Your task to perform on an android device: Open sound settings Image 0: 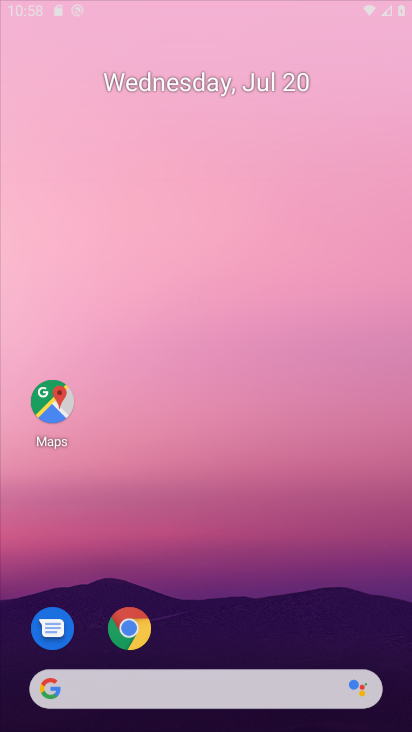
Step 0: click (113, 52)
Your task to perform on an android device: Open sound settings Image 1: 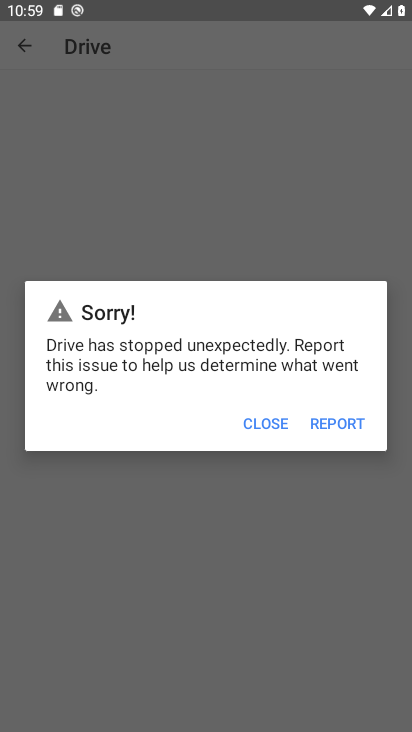
Step 1: click (264, 429)
Your task to perform on an android device: Open sound settings Image 2: 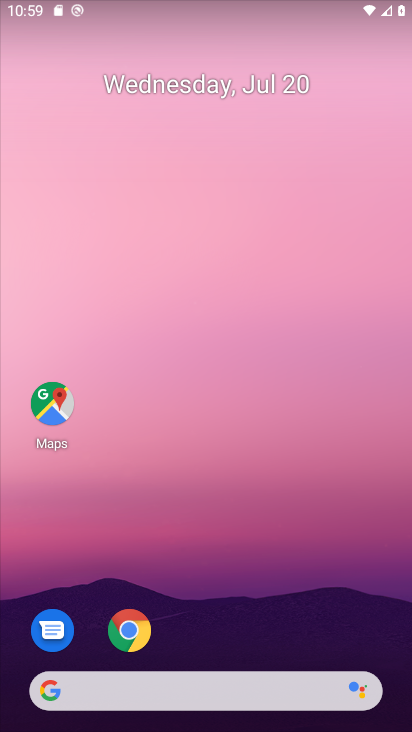
Step 2: drag from (253, 605) to (141, 66)
Your task to perform on an android device: Open sound settings Image 3: 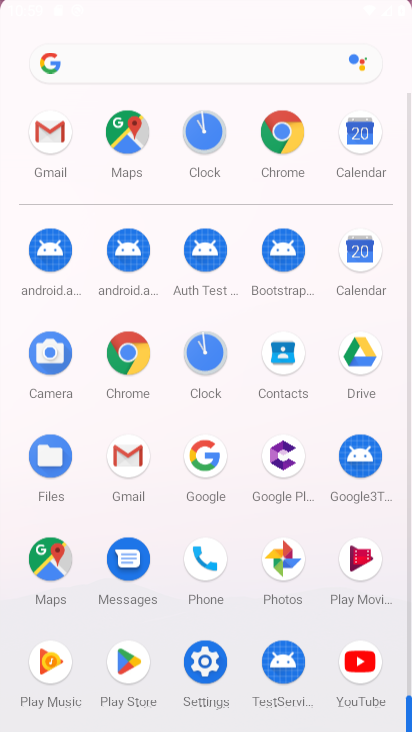
Step 3: drag from (248, 452) to (235, 112)
Your task to perform on an android device: Open sound settings Image 4: 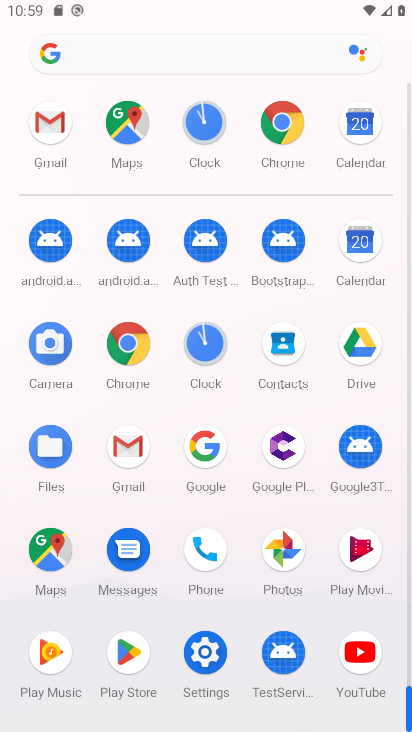
Step 4: click (148, 74)
Your task to perform on an android device: Open sound settings Image 5: 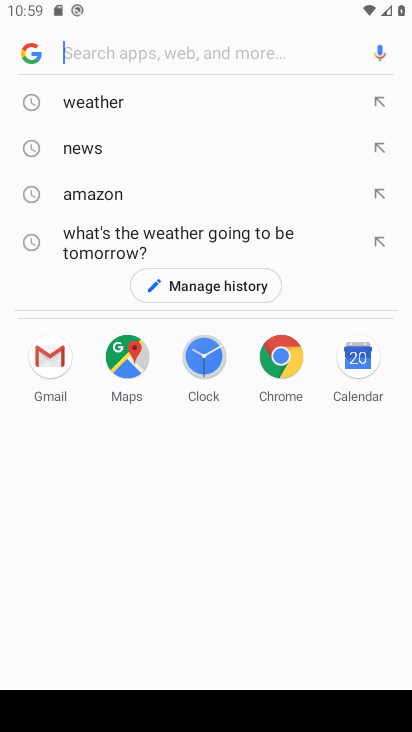
Step 5: click (220, 660)
Your task to perform on an android device: Open sound settings Image 6: 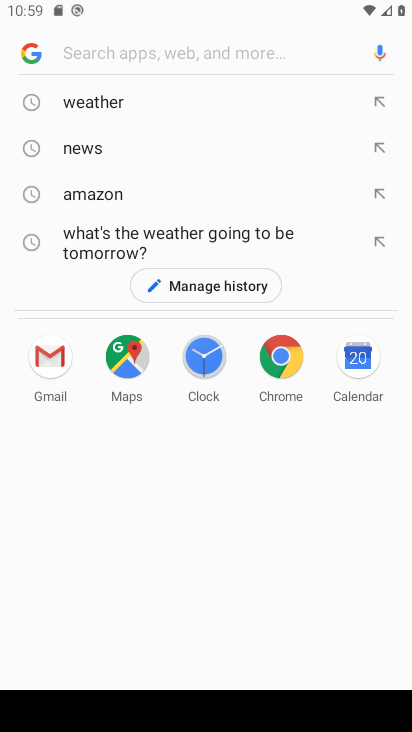
Step 6: press back button
Your task to perform on an android device: Open sound settings Image 7: 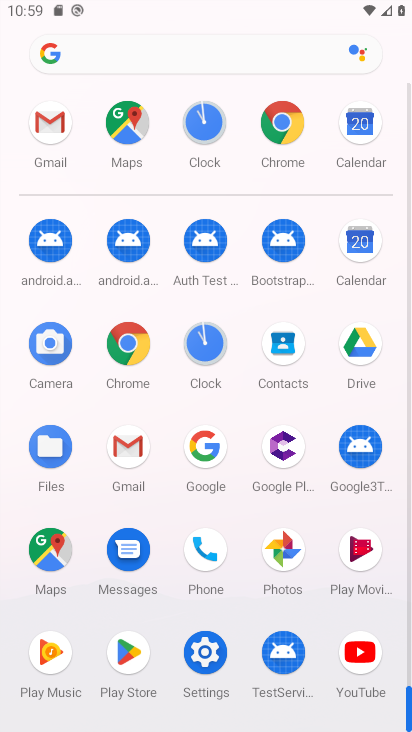
Step 7: click (193, 658)
Your task to perform on an android device: Open sound settings Image 8: 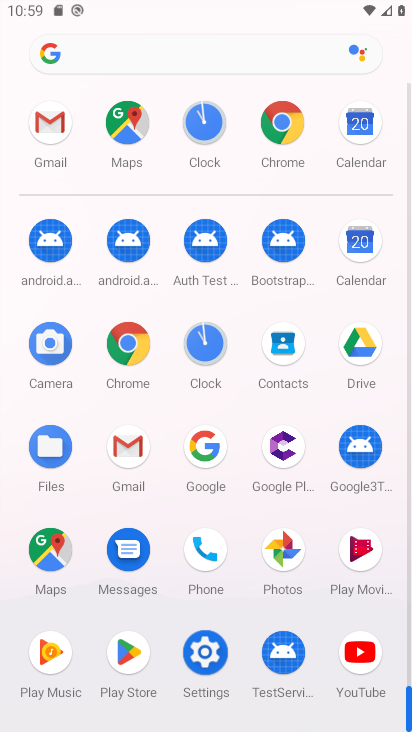
Step 8: click (197, 654)
Your task to perform on an android device: Open sound settings Image 9: 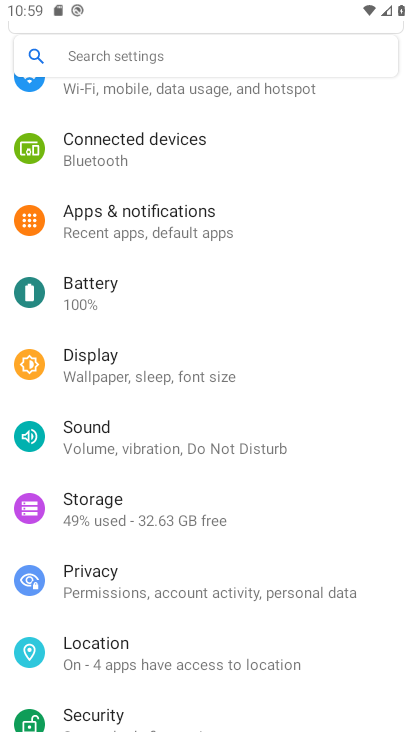
Step 9: click (87, 440)
Your task to perform on an android device: Open sound settings Image 10: 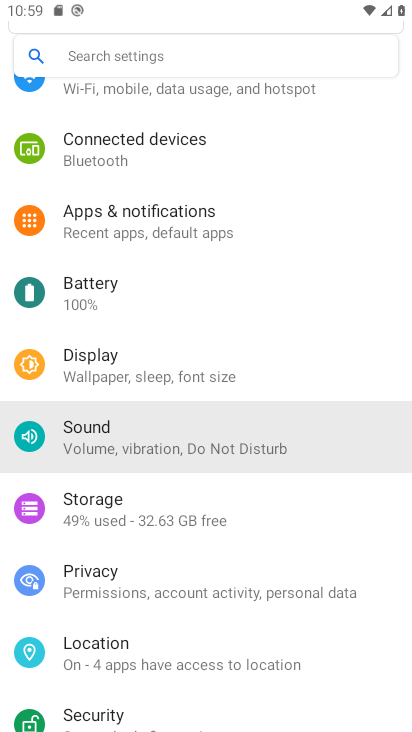
Step 10: click (91, 448)
Your task to perform on an android device: Open sound settings Image 11: 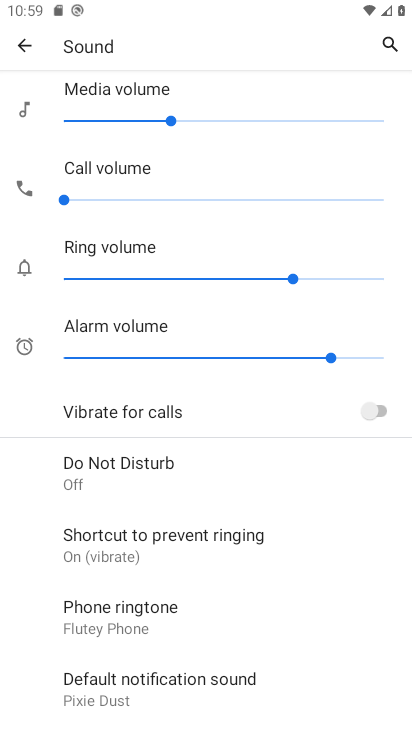
Step 11: task complete